Your task to perform on an android device: Open location settings Image 0: 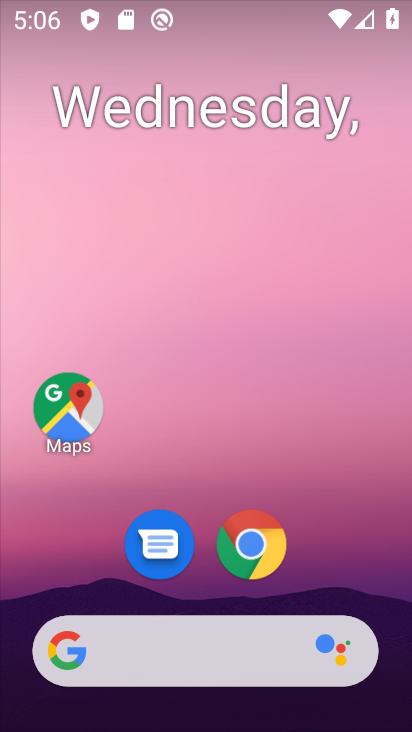
Step 0: drag from (395, 592) to (382, 190)
Your task to perform on an android device: Open location settings Image 1: 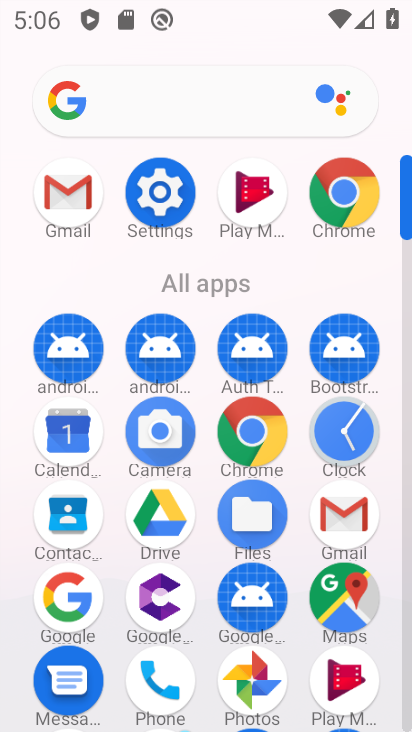
Step 1: click (170, 192)
Your task to perform on an android device: Open location settings Image 2: 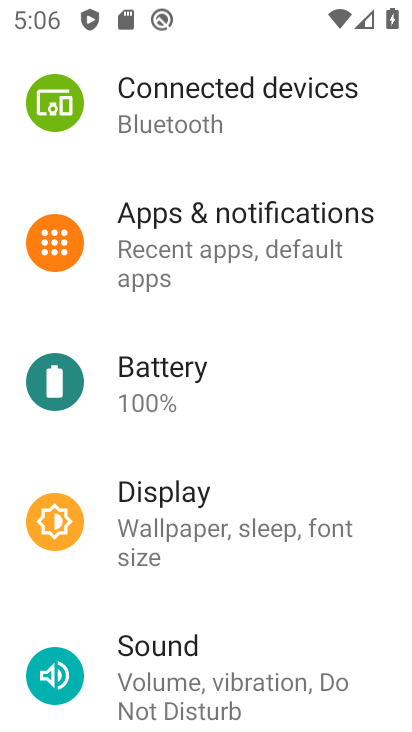
Step 2: drag from (267, 602) to (220, 284)
Your task to perform on an android device: Open location settings Image 3: 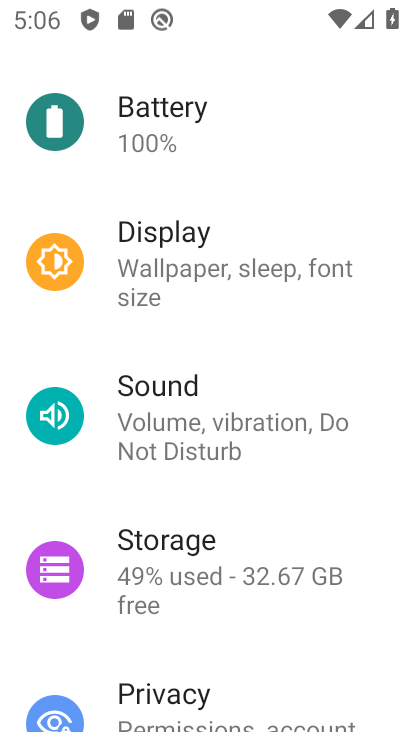
Step 3: drag from (226, 612) to (197, 269)
Your task to perform on an android device: Open location settings Image 4: 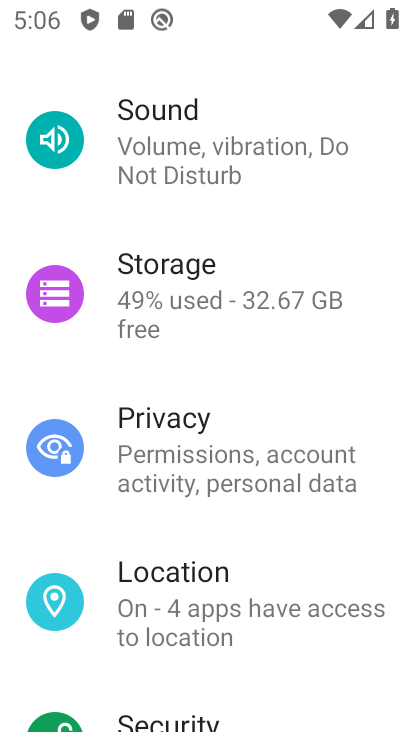
Step 4: click (186, 594)
Your task to perform on an android device: Open location settings Image 5: 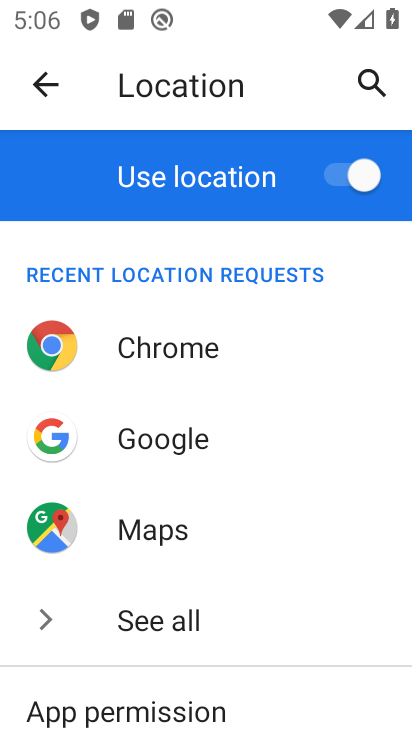
Step 5: drag from (263, 591) to (192, 151)
Your task to perform on an android device: Open location settings Image 6: 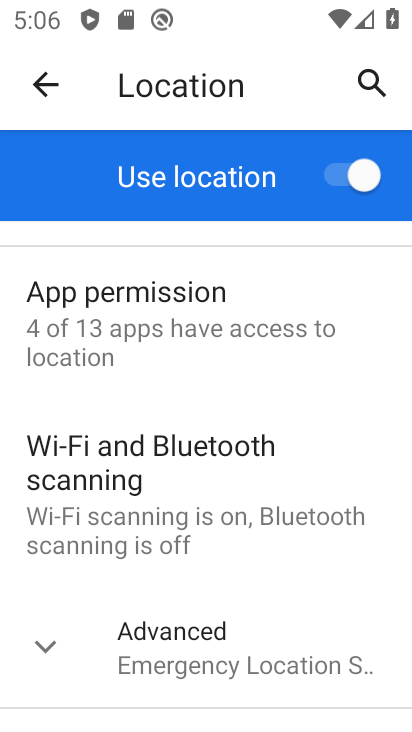
Step 6: click (34, 643)
Your task to perform on an android device: Open location settings Image 7: 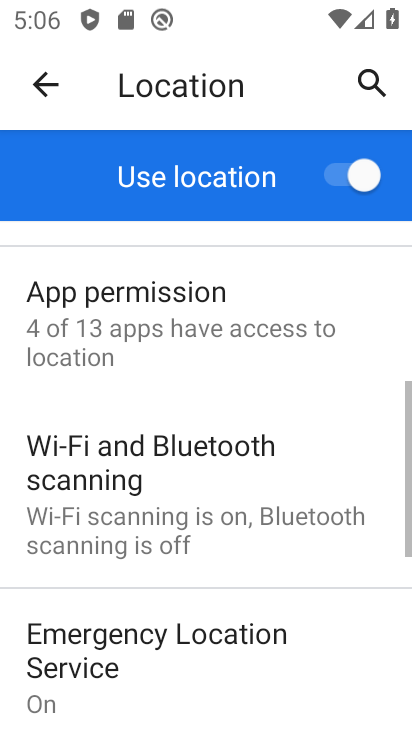
Step 7: task complete